Your task to perform on an android device: allow cookies in the chrome app Image 0: 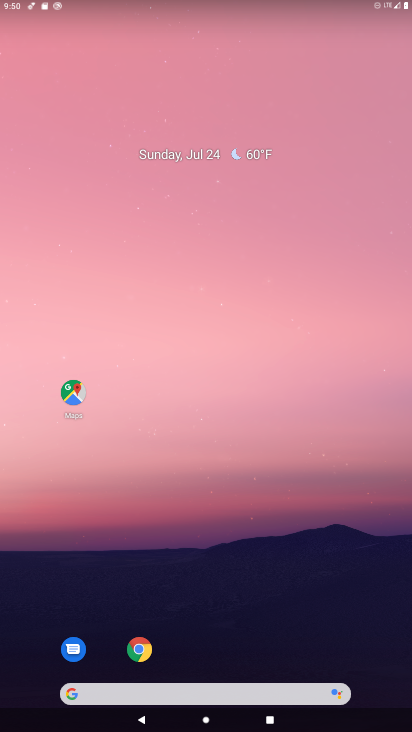
Step 0: drag from (257, 587) to (212, 95)
Your task to perform on an android device: allow cookies in the chrome app Image 1: 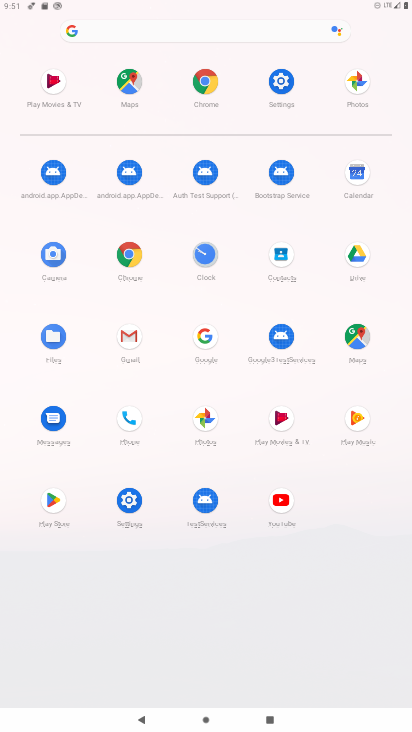
Step 1: click (130, 257)
Your task to perform on an android device: allow cookies in the chrome app Image 2: 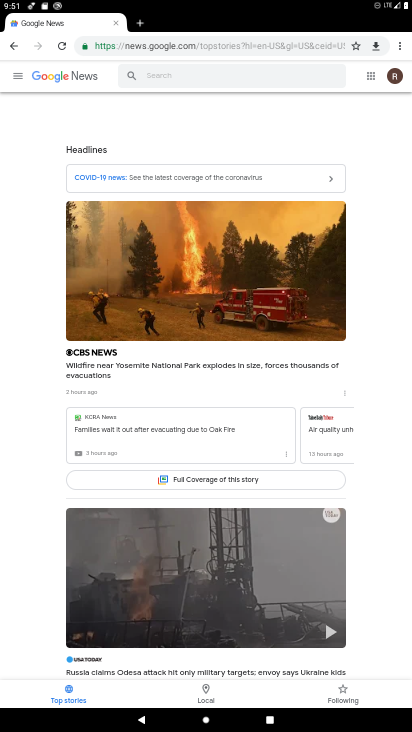
Step 2: drag from (403, 39) to (311, 336)
Your task to perform on an android device: allow cookies in the chrome app Image 3: 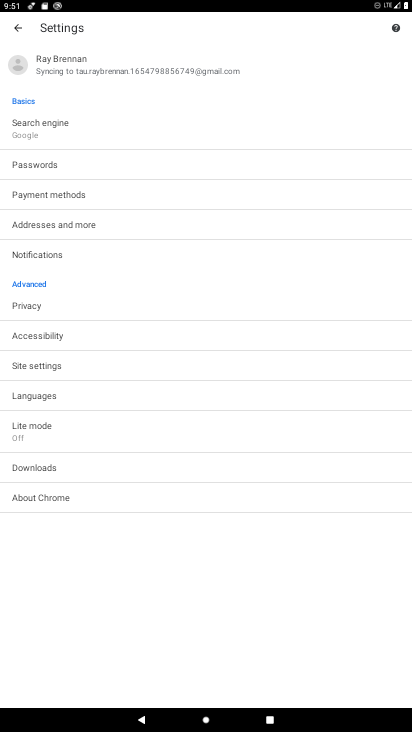
Step 3: click (38, 362)
Your task to perform on an android device: allow cookies in the chrome app Image 4: 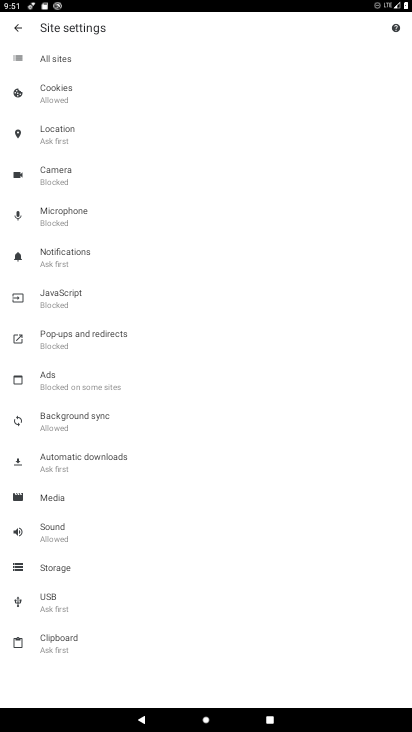
Step 4: click (70, 86)
Your task to perform on an android device: allow cookies in the chrome app Image 5: 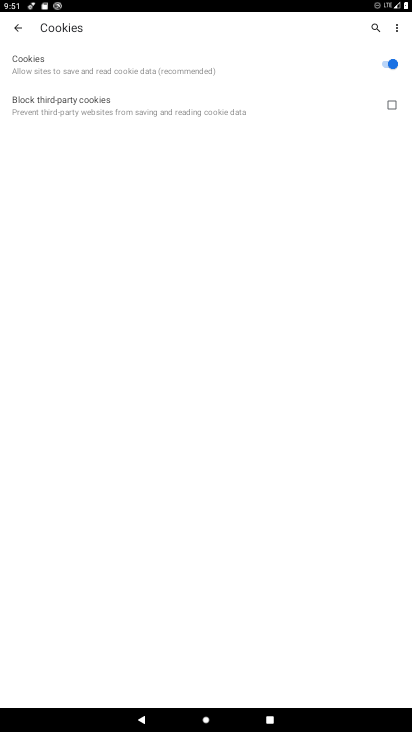
Step 5: task complete